Your task to perform on an android device: turn on bluetooth scan Image 0: 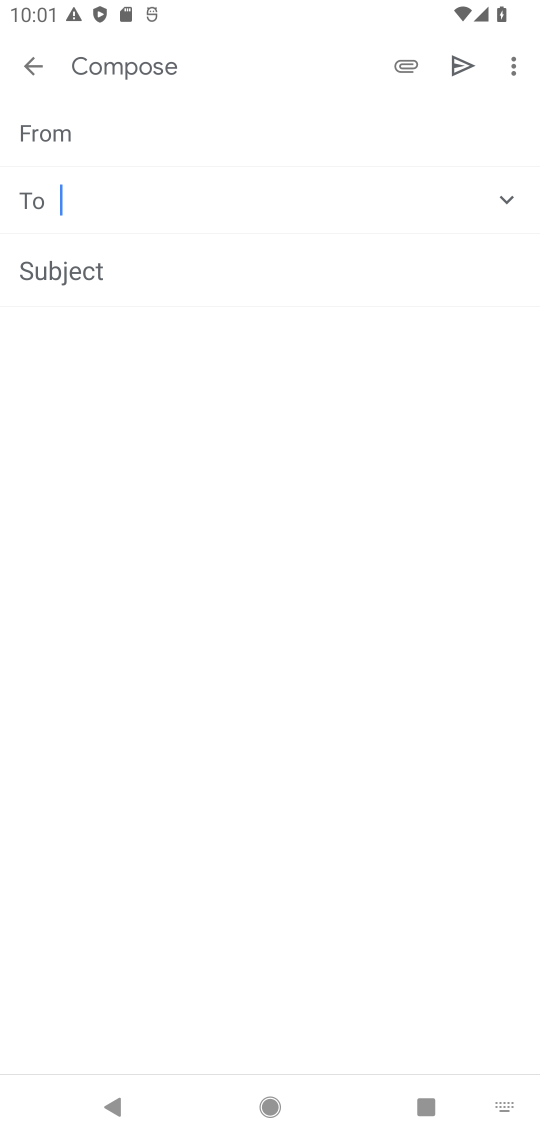
Step 0: press home button
Your task to perform on an android device: turn on bluetooth scan Image 1: 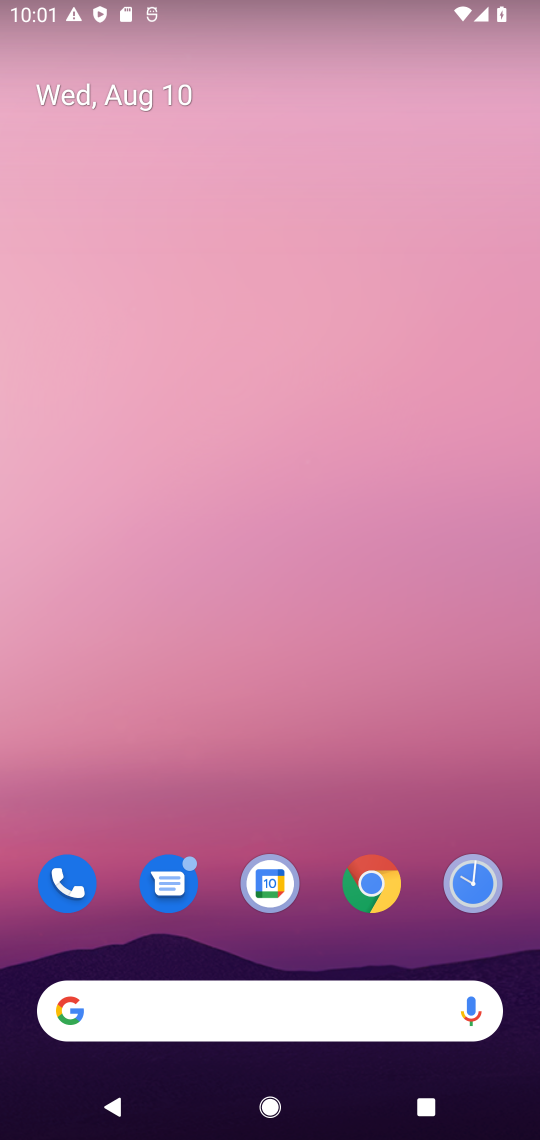
Step 1: drag from (277, 915) to (319, 320)
Your task to perform on an android device: turn on bluetooth scan Image 2: 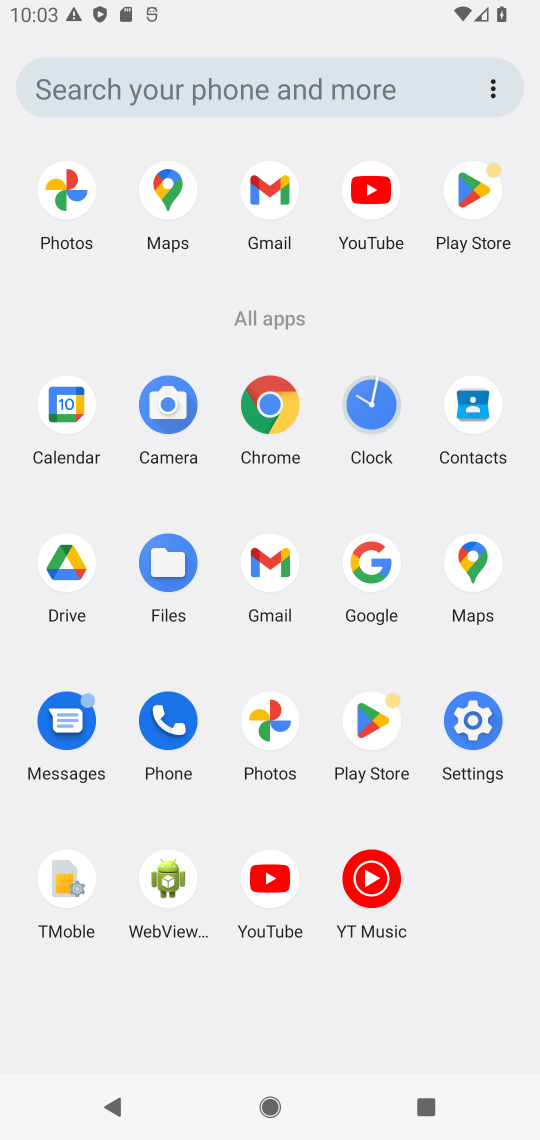
Step 2: click (478, 701)
Your task to perform on an android device: turn on bluetooth scan Image 3: 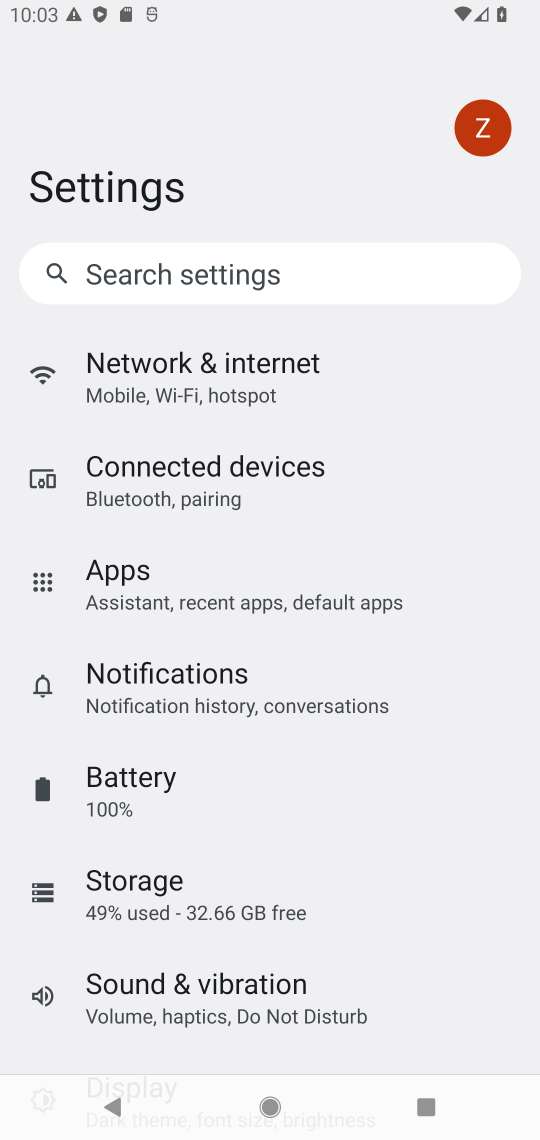
Step 3: drag from (152, 720) to (373, 0)
Your task to perform on an android device: turn on bluetooth scan Image 4: 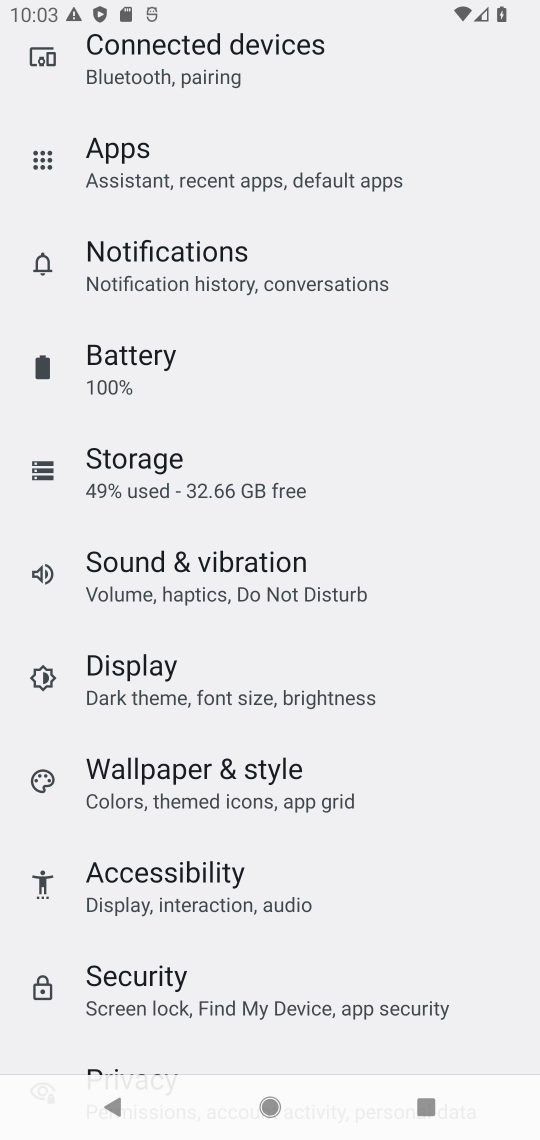
Step 4: drag from (233, 782) to (317, 362)
Your task to perform on an android device: turn on bluetooth scan Image 5: 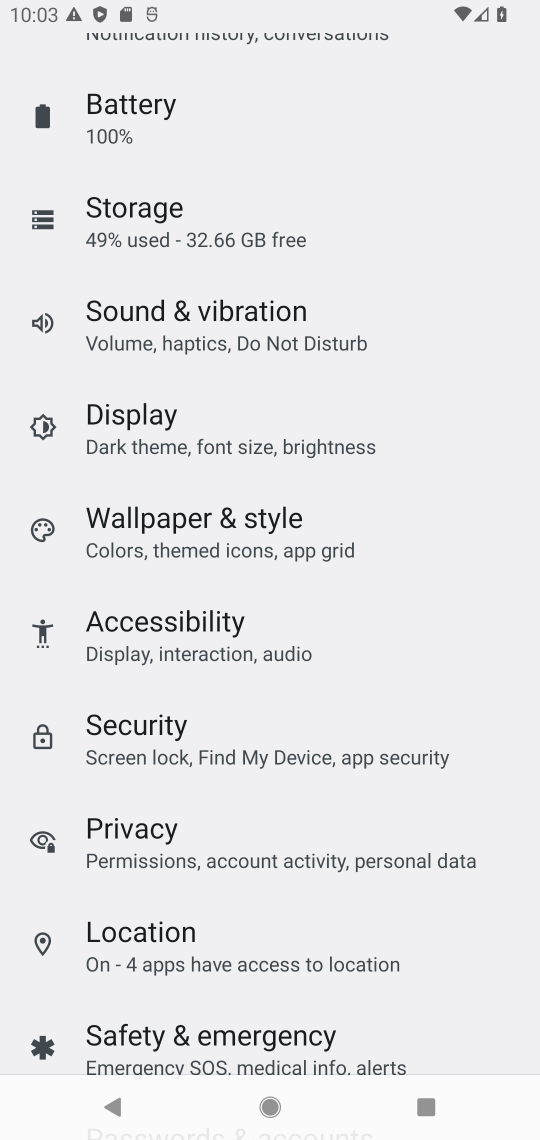
Step 5: drag from (339, 204) to (226, 887)
Your task to perform on an android device: turn on bluetooth scan Image 6: 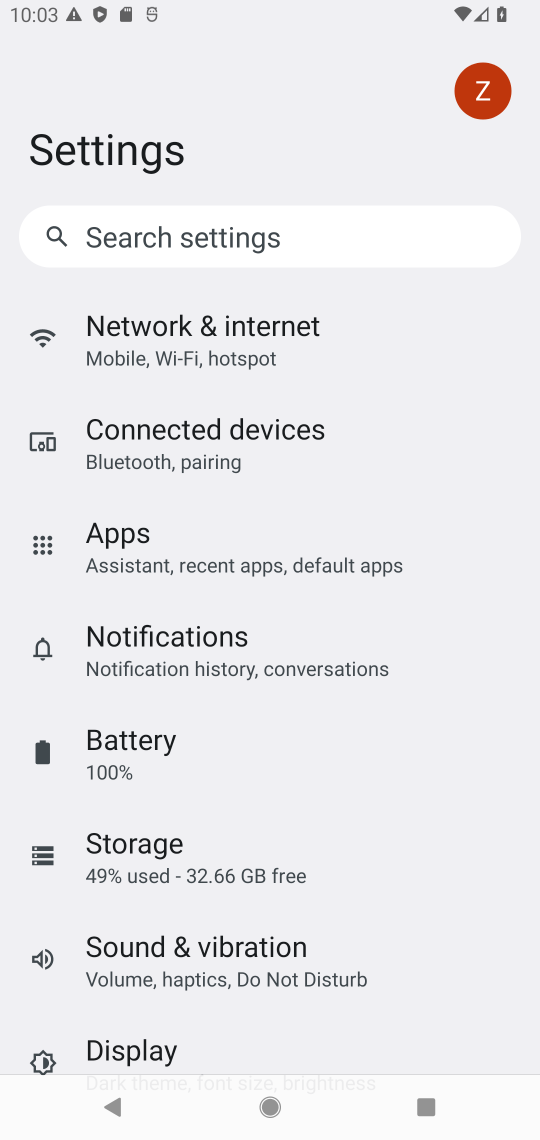
Step 6: click (239, 319)
Your task to perform on an android device: turn on bluetooth scan Image 7: 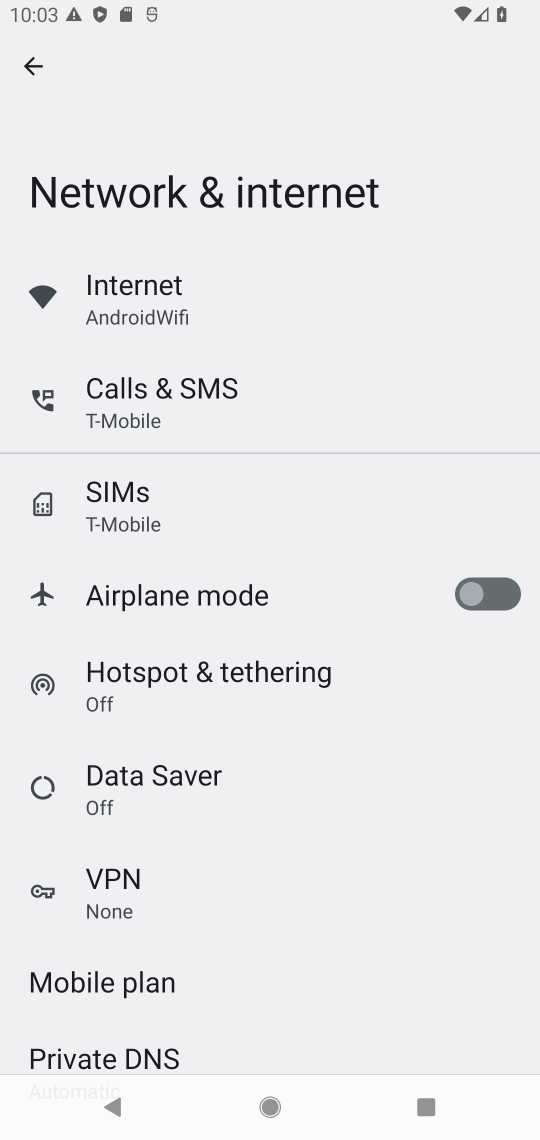
Step 7: drag from (123, 676) to (232, 169)
Your task to perform on an android device: turn on bluetooth scan Image 8: 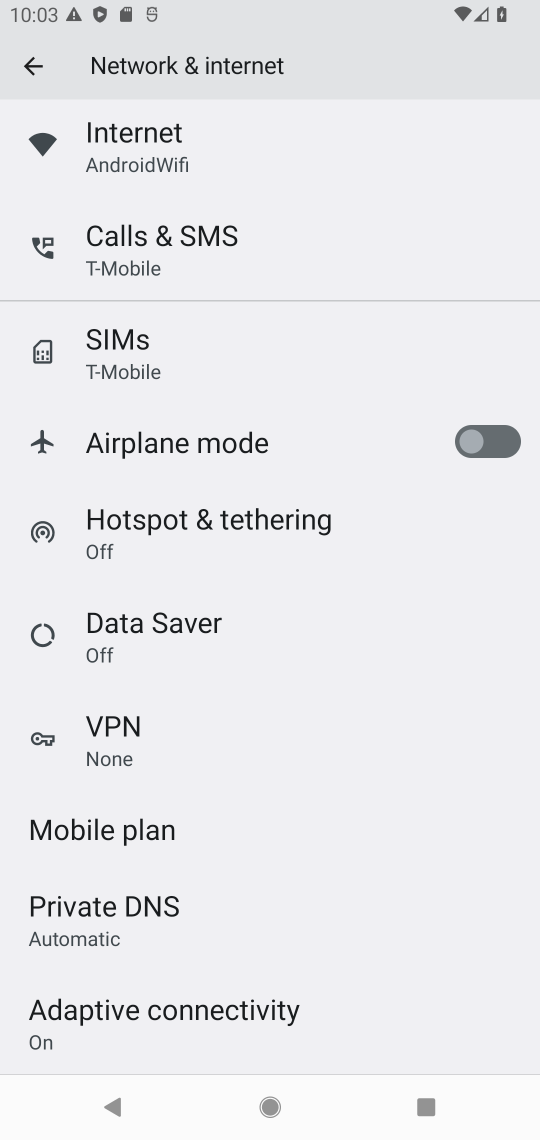
Step 8: drag from (255, 1052) to (321, 843)
Your task to perform on an android device: turn on bluetooth scan Image 9: 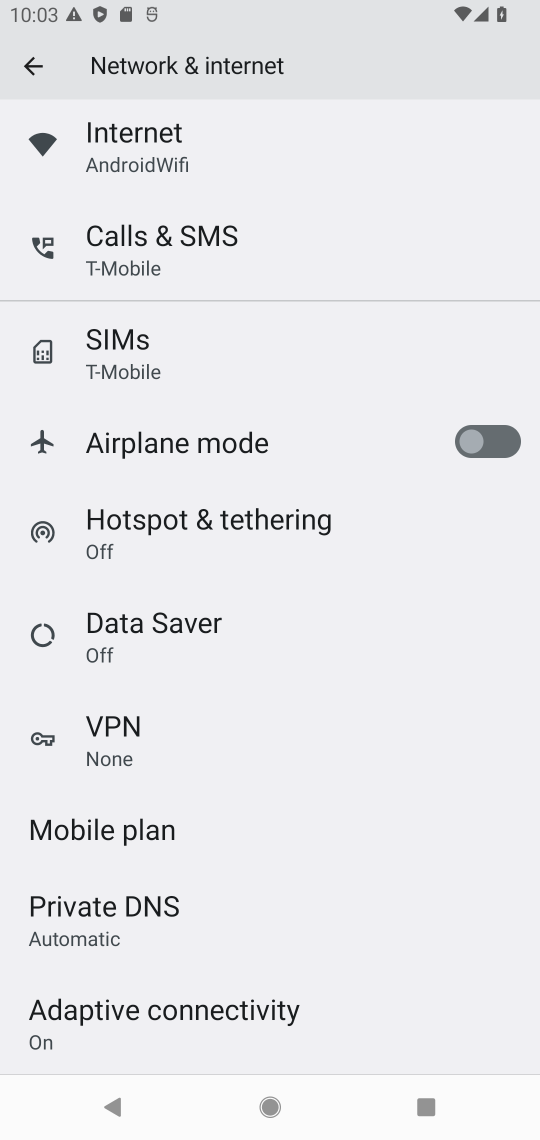
Step 9: press back button
Your task to perform on an android device: turn on bluetooth scan Image 10: 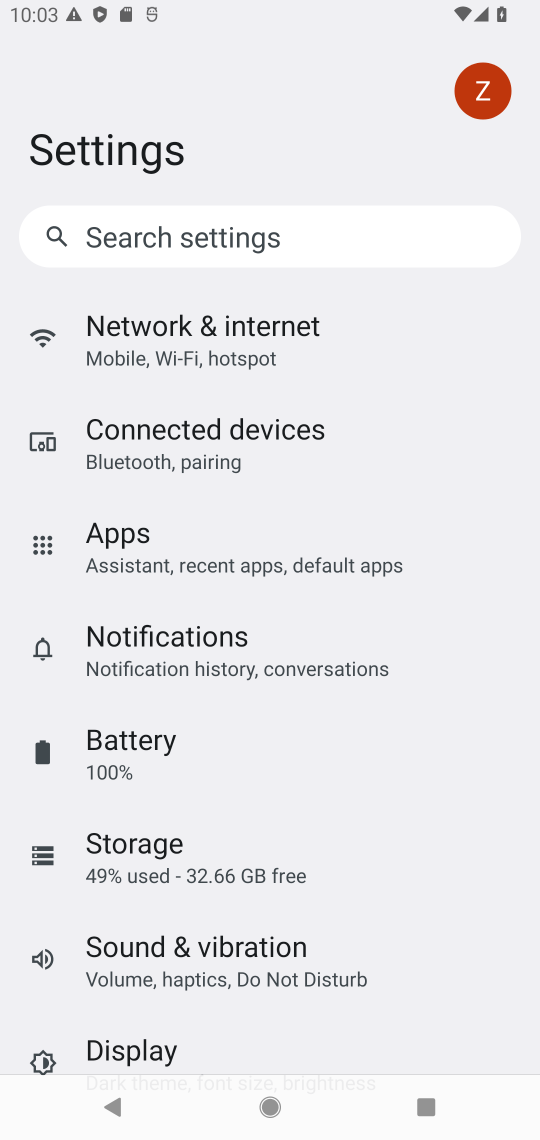
Step 10: drag from (229, 994) to (211, 73)
Your task to perform on an android device: turn on bluetooth scan Image 11: 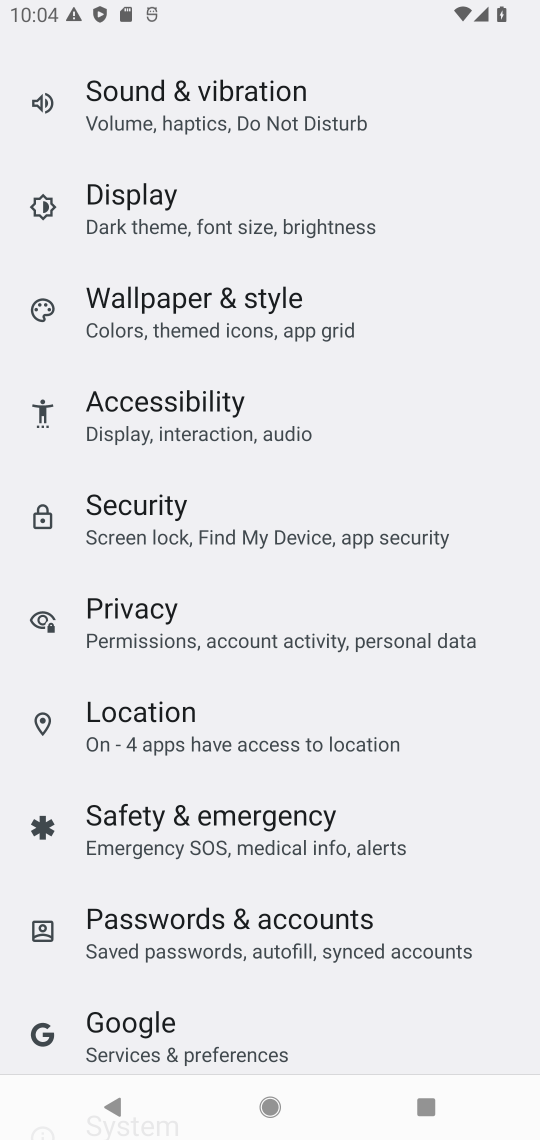
Step 11: click (129, 717)
Your task to perform on an android device: turn on bluetooth scan Image 12: 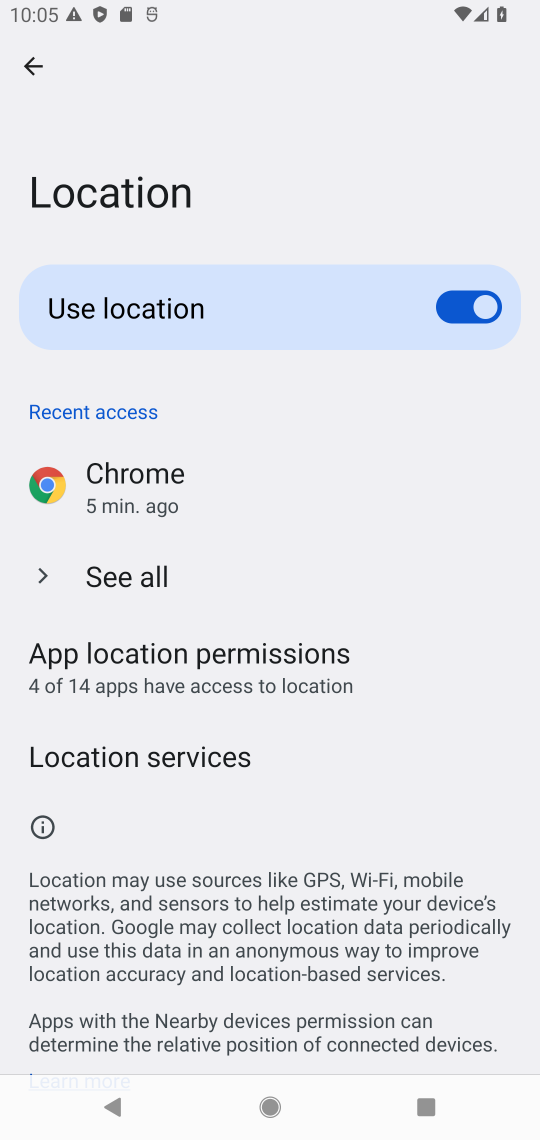
Step 12: task complete